Your task to perform on an android device: open a new tab in the chrome app Image 0: 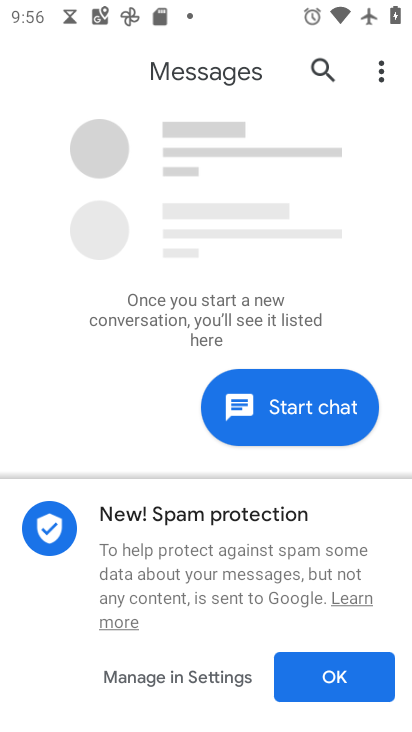
Step 0: drag from (345, 572) to (323, 74)
Your task to perform on an android device: open a new tab in the chrome app Image 1: 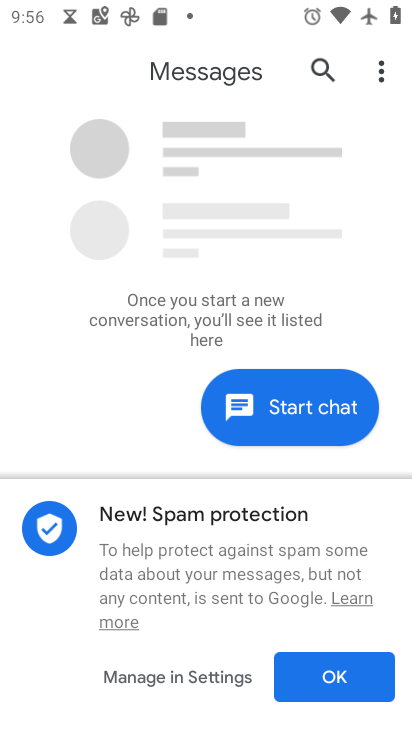
Step 1: press home button
Your task to perform on an android device: open a new tab in the chrome app Image 2: 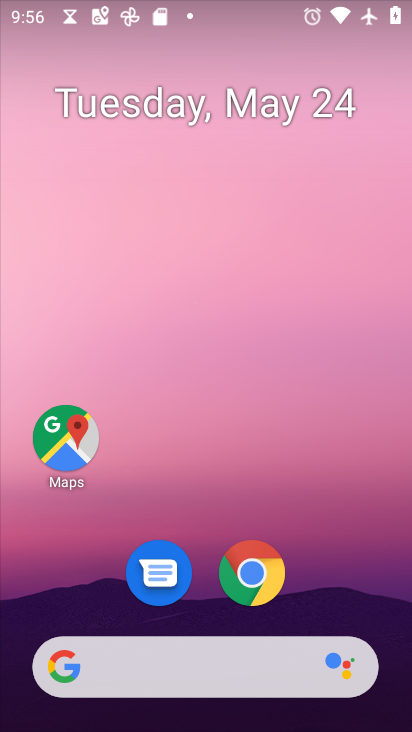
Step 2: drag from (301, 471) to (304, 26)
Your task to perform on an android device: open a new tab in the chrome app Image 3: 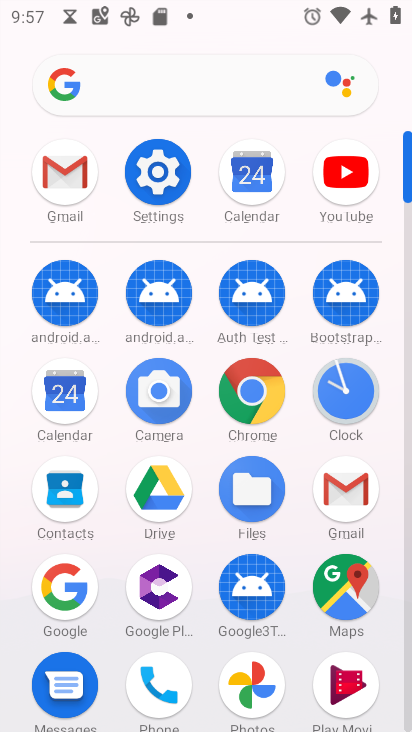
Step 3: click (252, 391)
Your task to perform on an android device: open a new tab in the chrome app Image 4: 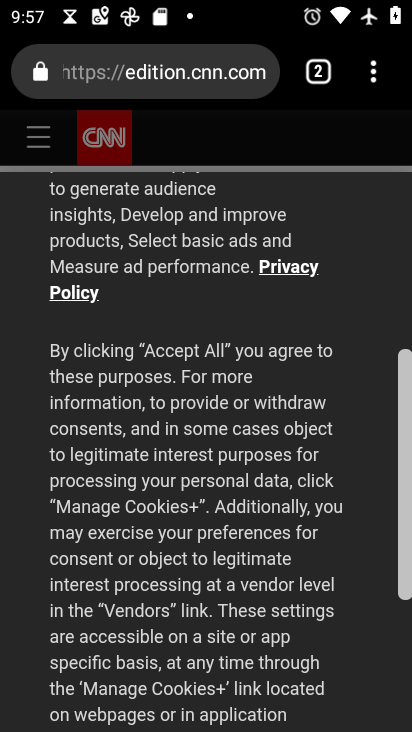
Step 4: task complete